Your task to perform on an android device: Open settings on Google Maps Image 0: 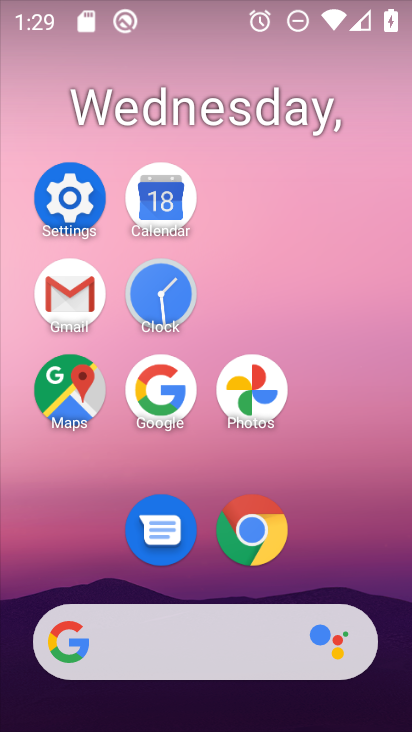
Step 0: click (76, 393)
Your task to perform on an android device: Open settings on Google Maps Image 1: 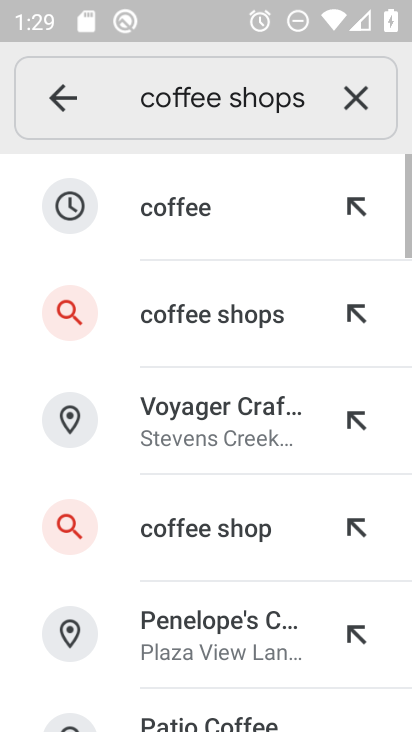
Step 1: click (61, 85)
Your task to perform on an android device: Open settings on Google Maps Image 2: 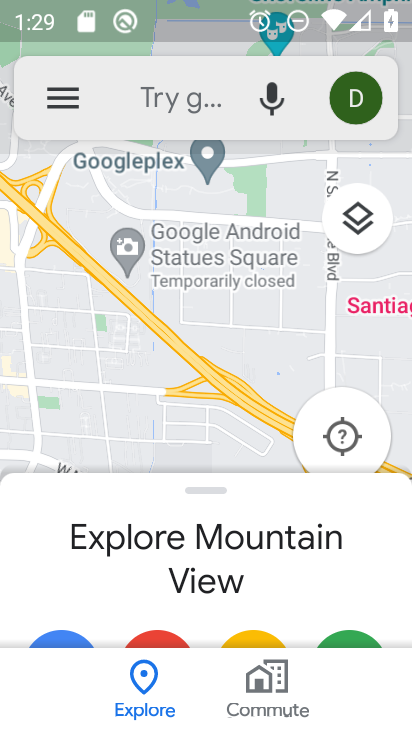
Step 2: click (61, 85)
Your task to perform on an android device: Open settings on Google Maps Image 3: 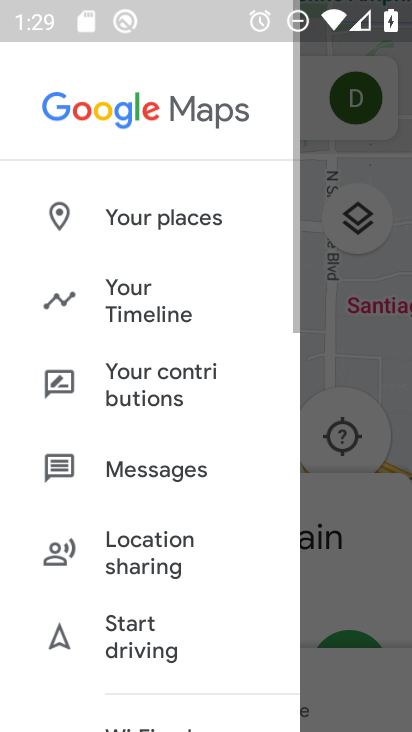
Step 3: drag from (169, 578) to (211, 169)
Your task to perform on an android device: Open settings on Google Maps Image 4: 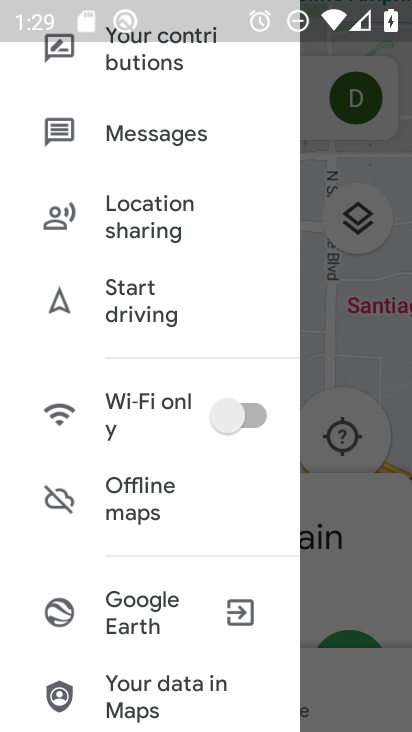
Step 4: drag from (207, 598) to (222, 218)
Your task to perform on an android device: Open settings on Google Maps Image 5: 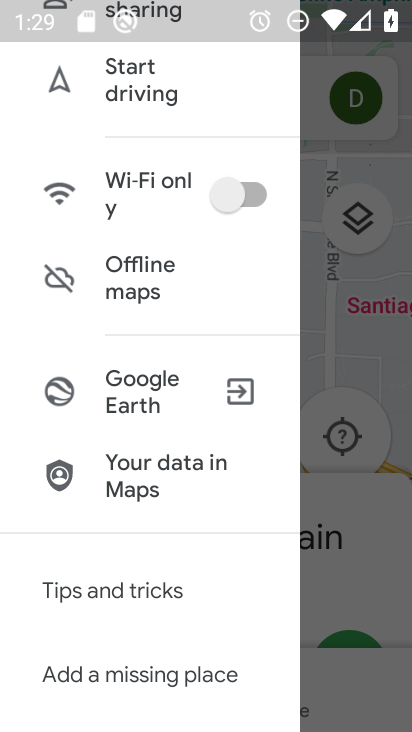
Step 5: drag from (169, 618) to (215, 241)
Your task to perform on an android device: Open settings on Google Maps Image 6: 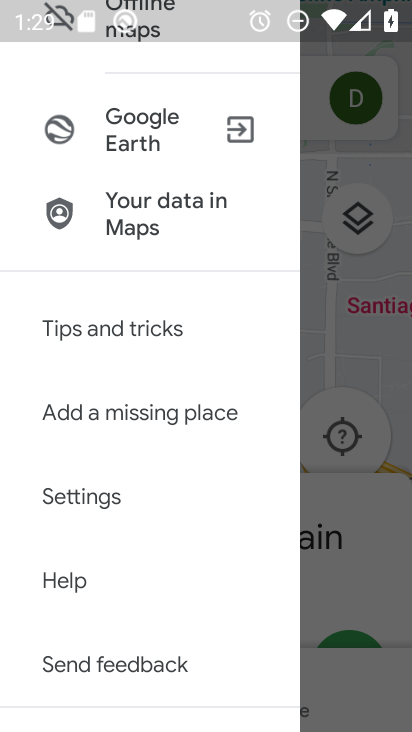
Step 6: click (172, 501)
Your task to perform on an android device: Open settings on Google Maps Image 7: 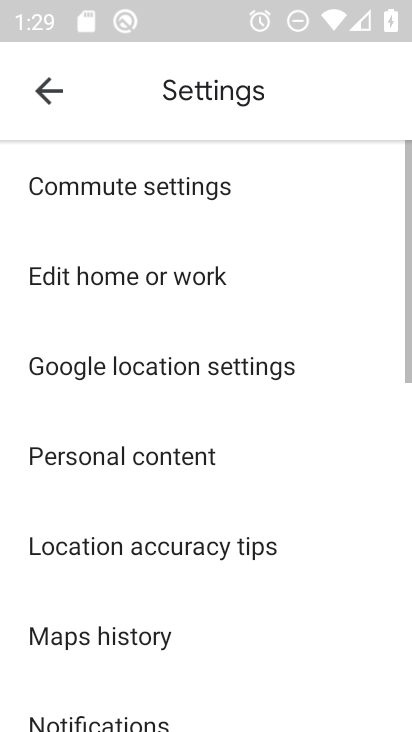
Step 7: task complete